Your task to perform on an android device: Search for sushi restaurants on Maps Image 0: 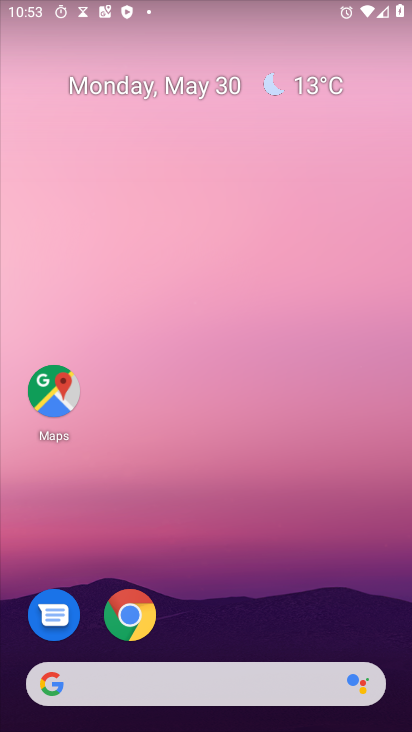
Step 0: drag from (277, 622) to (216, 72)
Your task to perform on an android device: Search for sushi restaurants on Maps Image 1: 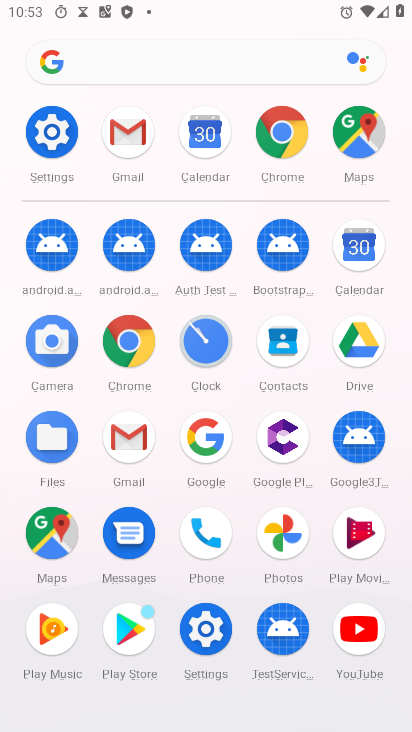
Step 1: click (358, 135)
Your task to perform on an android device: Search for sushi restaurants on Maps Image 2: 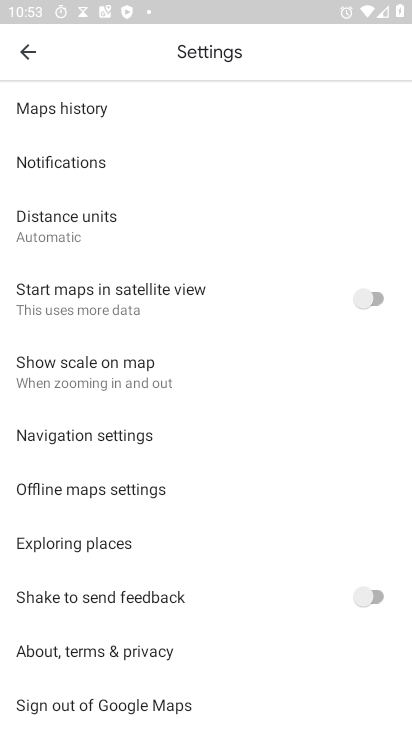
Step 2: click (35, 44)
Your task to perform on an android device: Search for sushi restaurants on Maps Image 3: 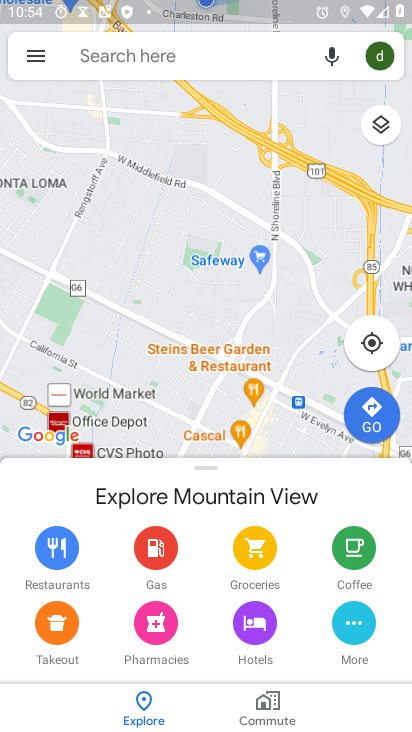
Step 3: click (189, 70)
Your task to perform on an android device: Search for sushi restaurants on Maps Image 4: 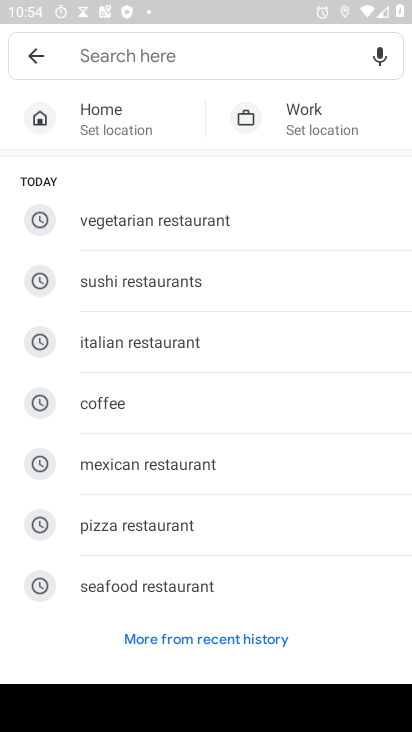
Step 4: click (187, 289)
Your task to perform on an android device: Search for sushi restaurants on Maps Image 5: 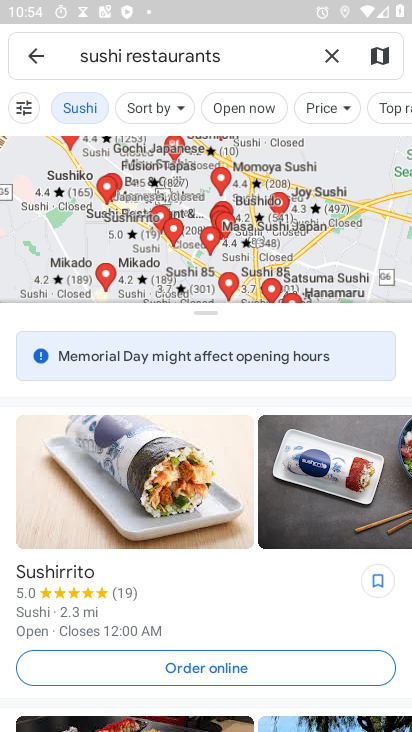
Step 5: task complete